Your task to perform on an android device: Open Android settings Image 0: 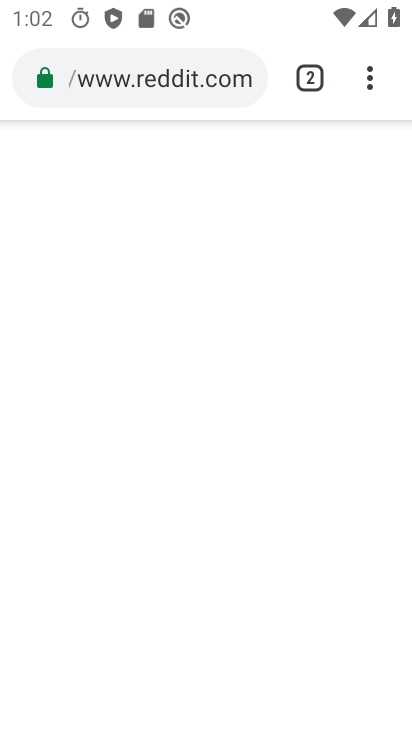
Step 0: press home button
Your task to perform on an android device: Open Android settings Image 1: 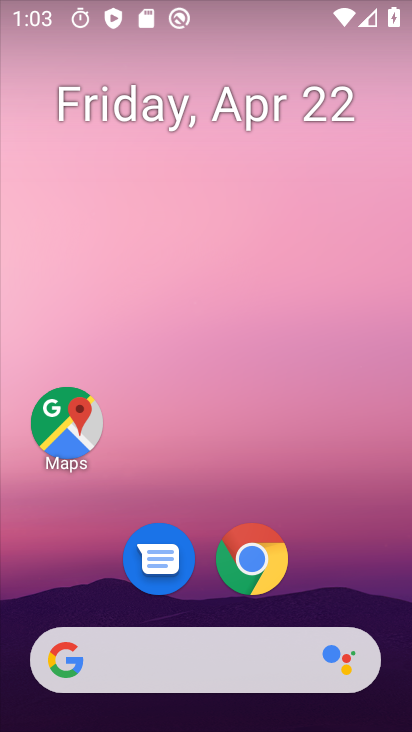
Step 1: drag from (347, 571) to (362, 173)
Your task to perform on an android device: Open Android settings Image 2: 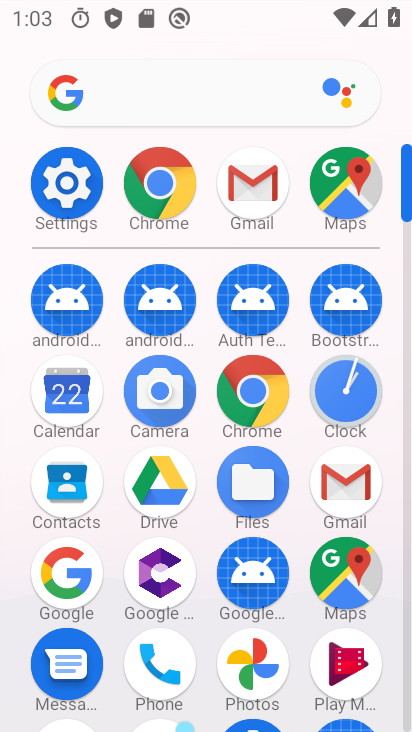
Step 2: click (60, 196)
Your task to perform on an android device: Open Android settings Image 3: 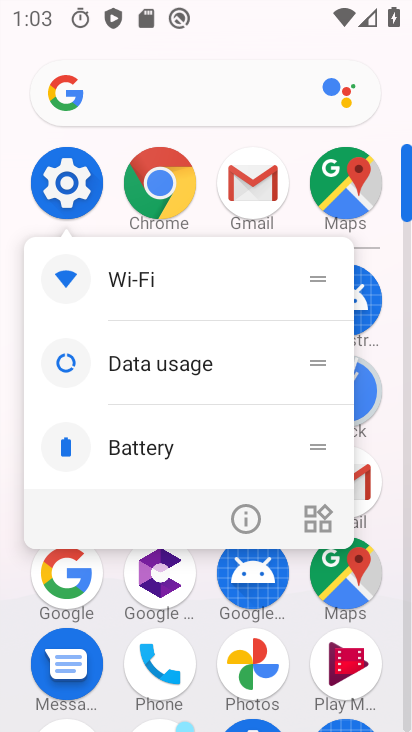
Step 3: click (60, 196)
Your task to perform on an android device: Open Android settings Image 4: 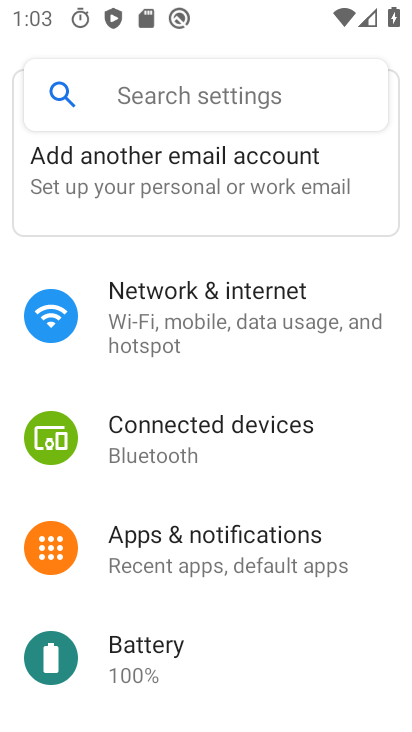
Step 4: drag from (353, 623) to (352, 514)
Your task to perform on an android device: Open Android settings Image 5: 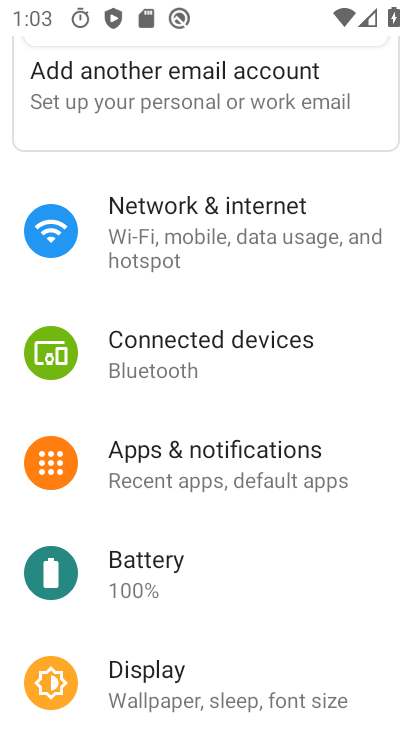
Step 5: drag from (362, 617) to (370, 489)
Your task to perform on an android device: Open Android settings Image 6: 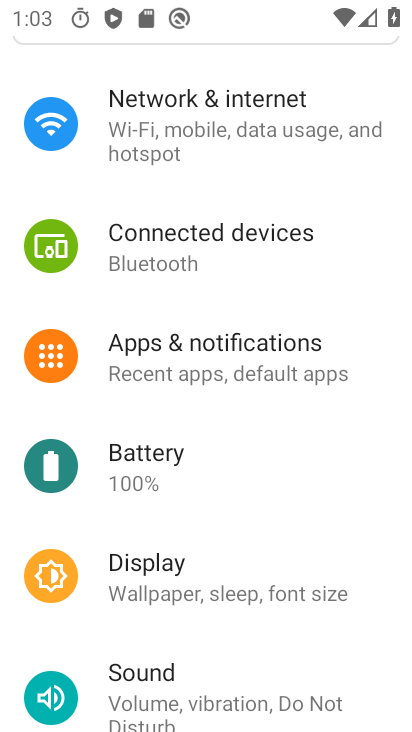
Step 6: drag from (366, 648) to (366, 521)
Your task to perform on an android device: Open Android settings Image 7: 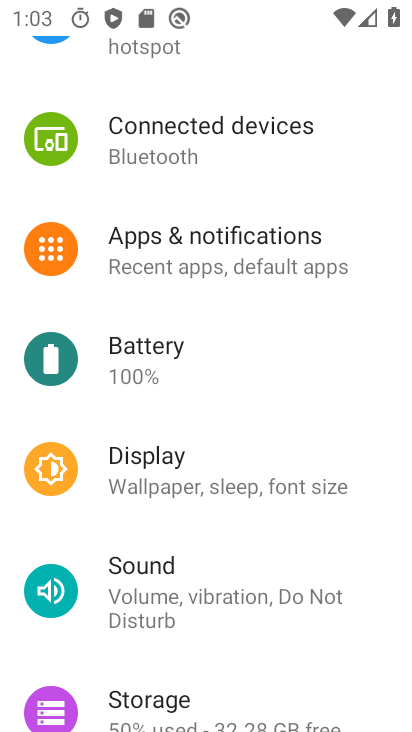
Step 7: drag from (358, 658) to (362, 530)
Your task to perform on an android device: Open Android settings Image 8: 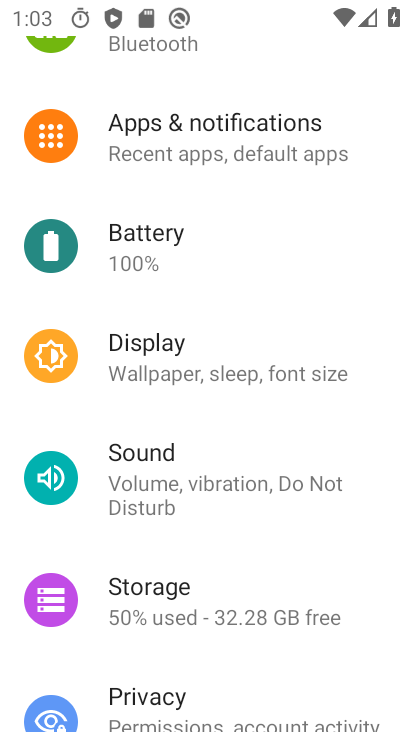
Step 8: drag from (370, 652) to (407, 500)
Your task to perform on an android device: Open Android settings Image 9: 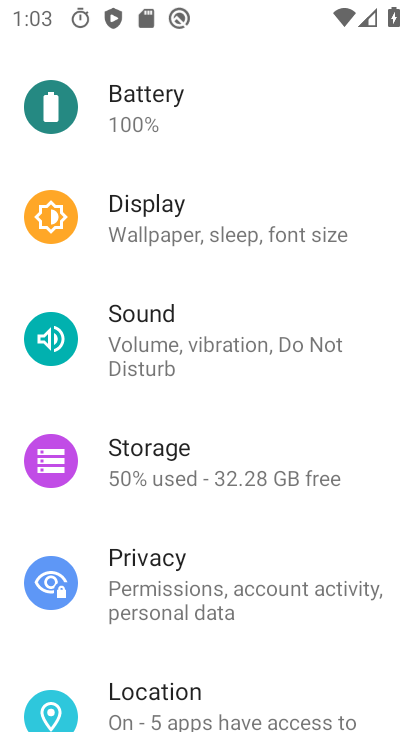
Step 9: drag from (372, 632) to (375, 504)
Your task to perform on an android device: Open Android settings Image 10: 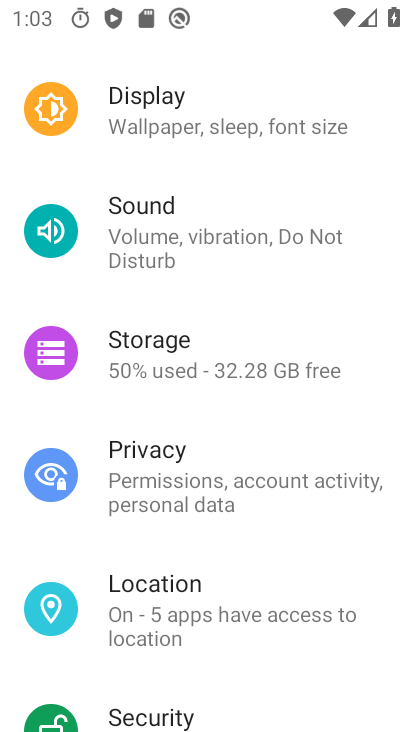
Step 10: drag from (363, 651) to (373, 522)
Your task to perform on an android device: Open Android settings Image 11: 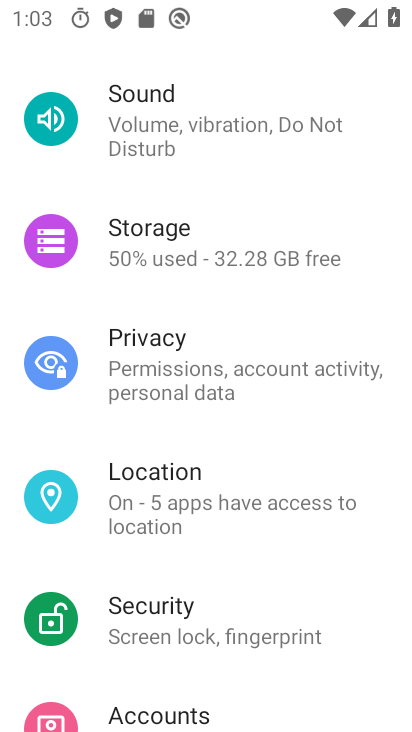
Step 11: drag from (367, 663) to (358, 545)
Your task to perform on an android device: Open Android settings Image 12: 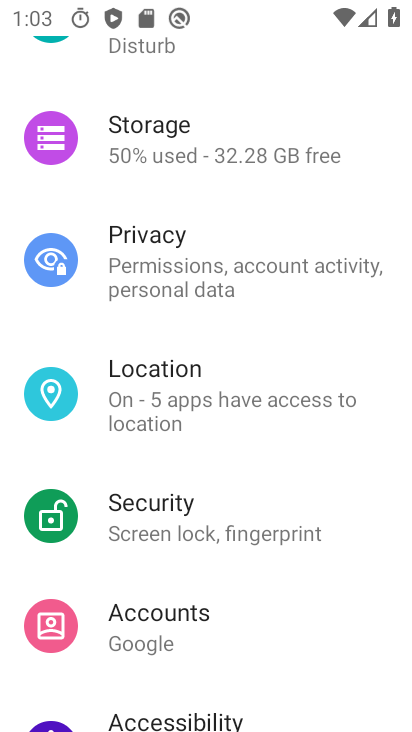
Step 12: drag from (342, 656) to (343, 530)
Your task to perform on an android device: Open Android settings Image 13: 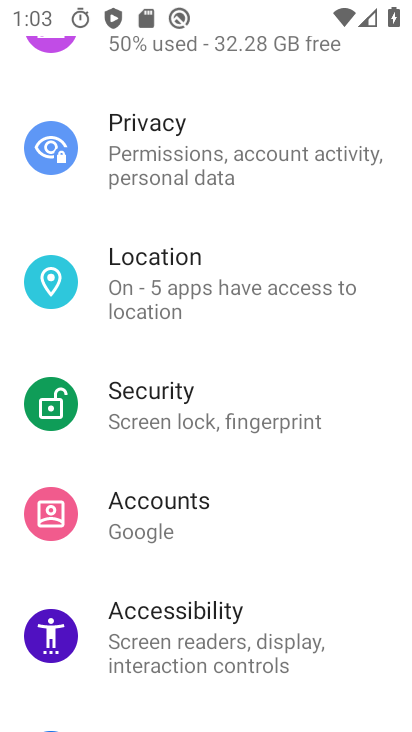
Step 13: drag from (347, 647) to (365, 503)
Your task to perform on an android device: Open Android settings Image 14: 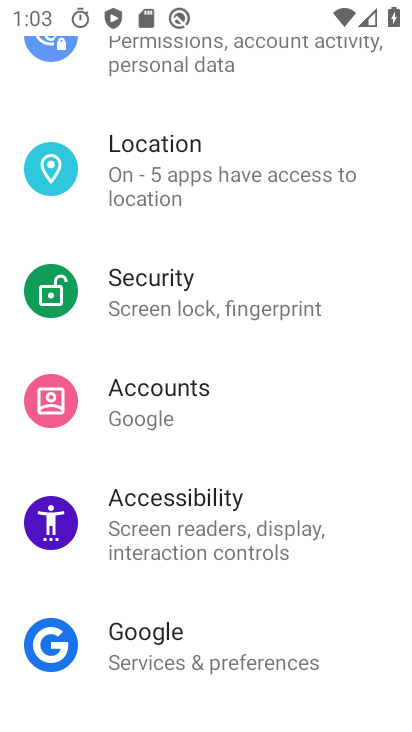
Step 14: drag from (344, 400) to (349, 558)
Your task to perform on an android device: Open Android settings Image 15: 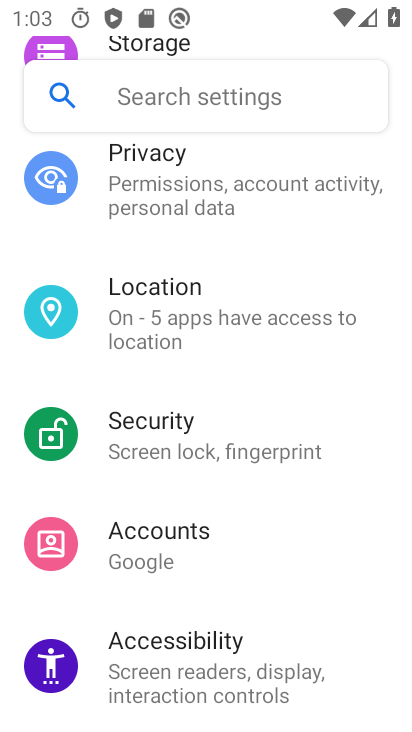
Step 15: drag from (339, 399) to (339, 546)
Your task to perform on an android device: Open Android settings Image 16: 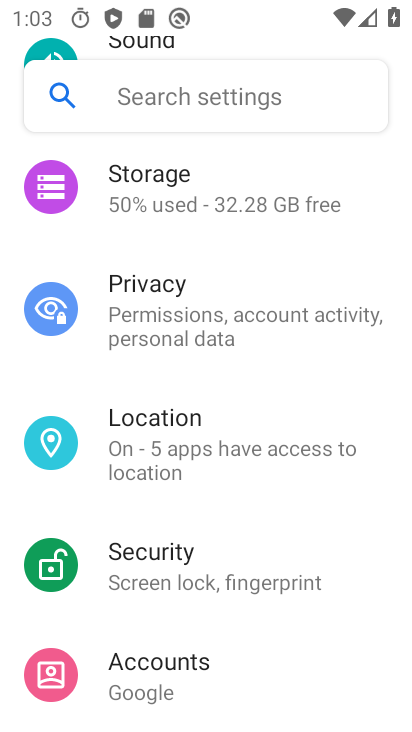
Step 16: drag from (354, 385) to (328, 557)
Your task to perform on an android device: Open Android settings Image 17: 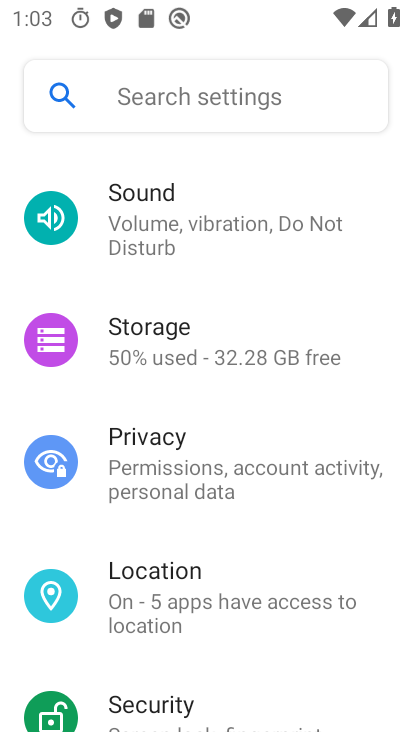
Step 17: drag from (324, 620) to (339, 459)
Your task to perform on an android device: Open Android settings Image 18: 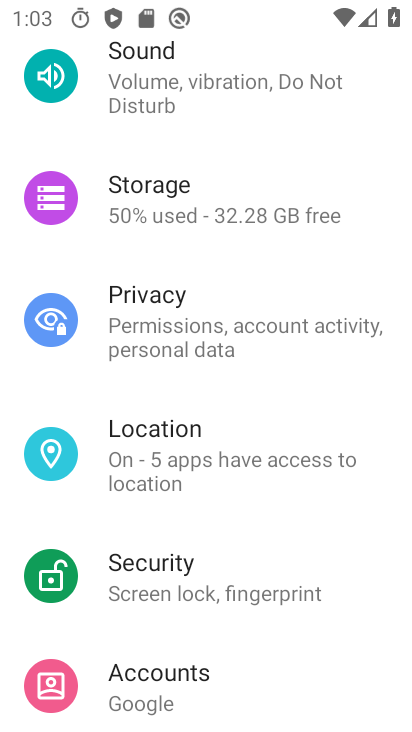
Step 18: drag from (359, 638) to (367, 467)
Your task to perform on an android device: Open Android settings Image 19: 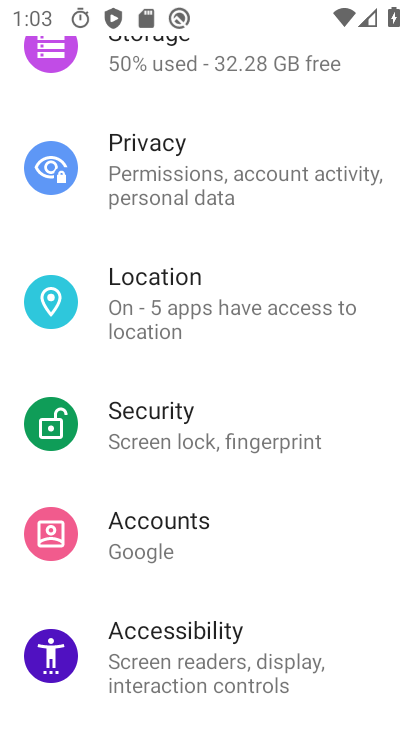
Step 19: drag from (343, 681) to (359, 348)
Your task to perform on an android device: Open Android settings Image 20: 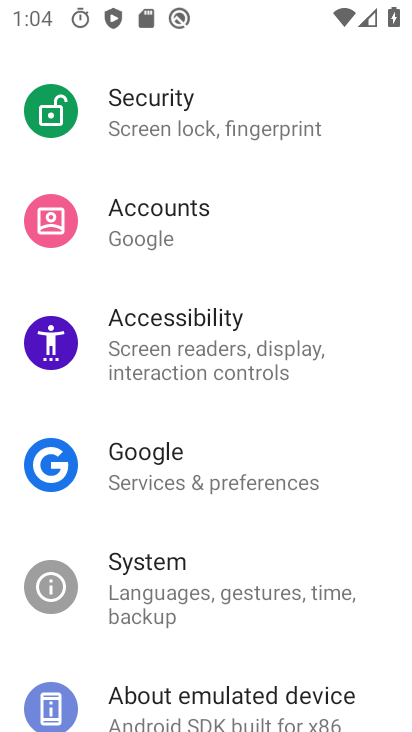
Step 20: click (279, 591)
Your task to perform on an android device: Open Android settings Image 21: 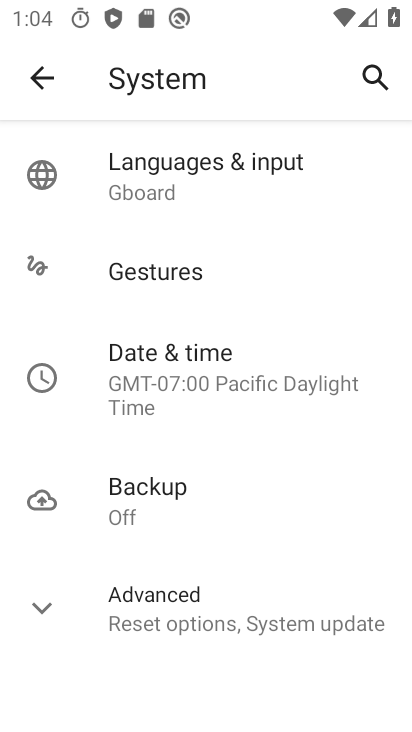
Step 21: click (264, 618)
Your task to perform on an android device: Open Android settings Image 22: 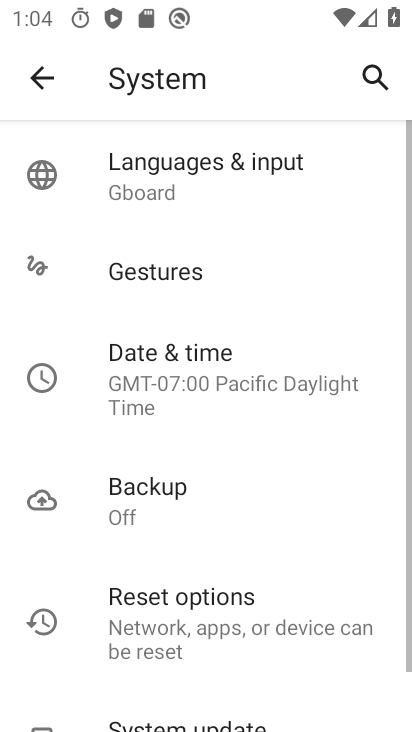
Step 22: task complete